Your task to perform on an android device: What's the time in New York? Image 0: 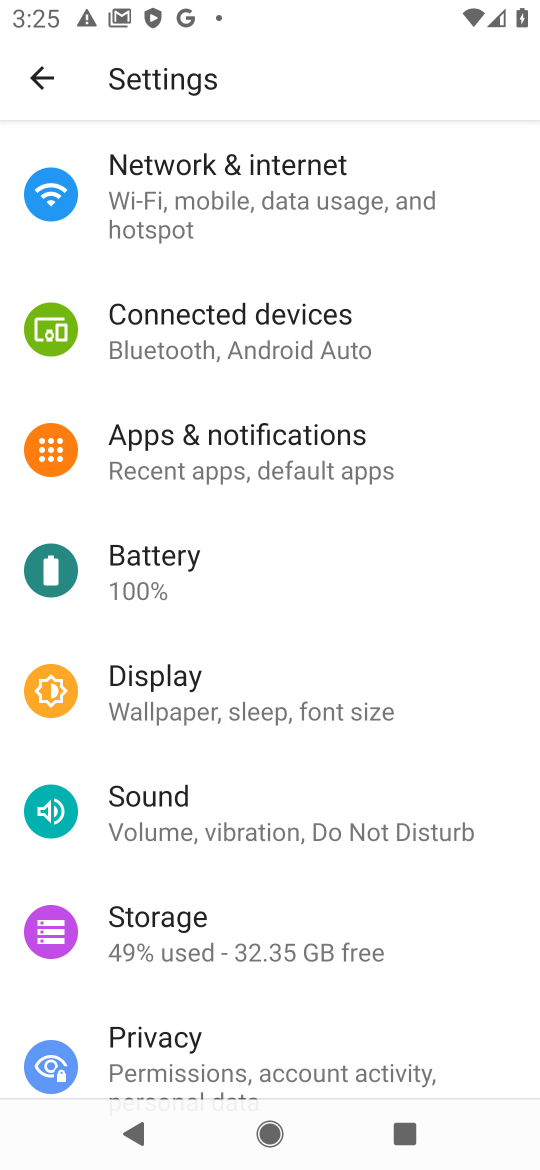
Step 0: press home button
Your task to perform on an android device: What's the time in New York? Image 1: 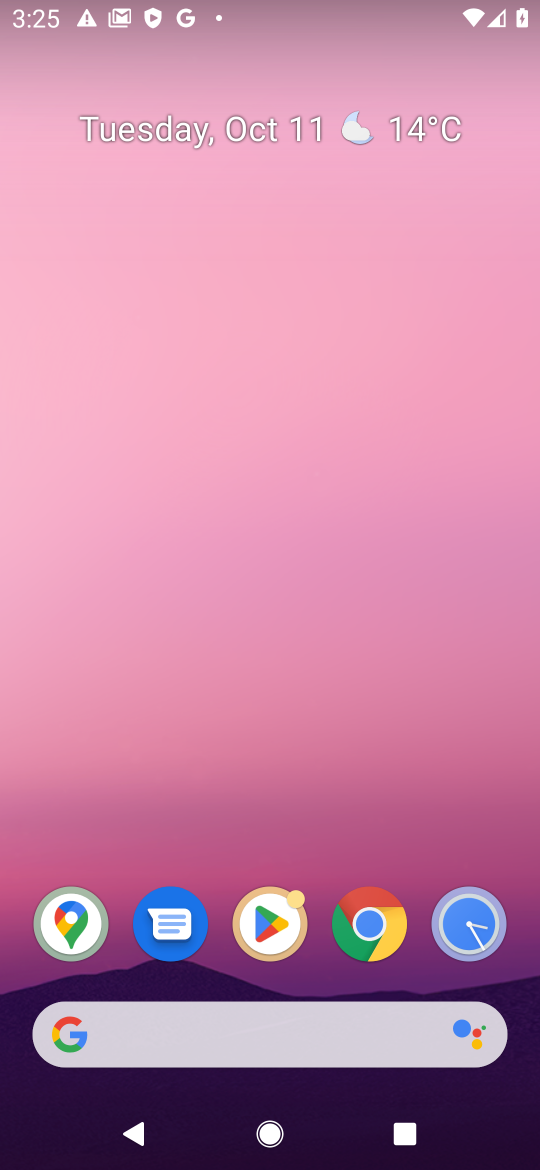
Step 1: click (393, 928)
Your task to perform on an android device: What's the time in New York? Image 2: 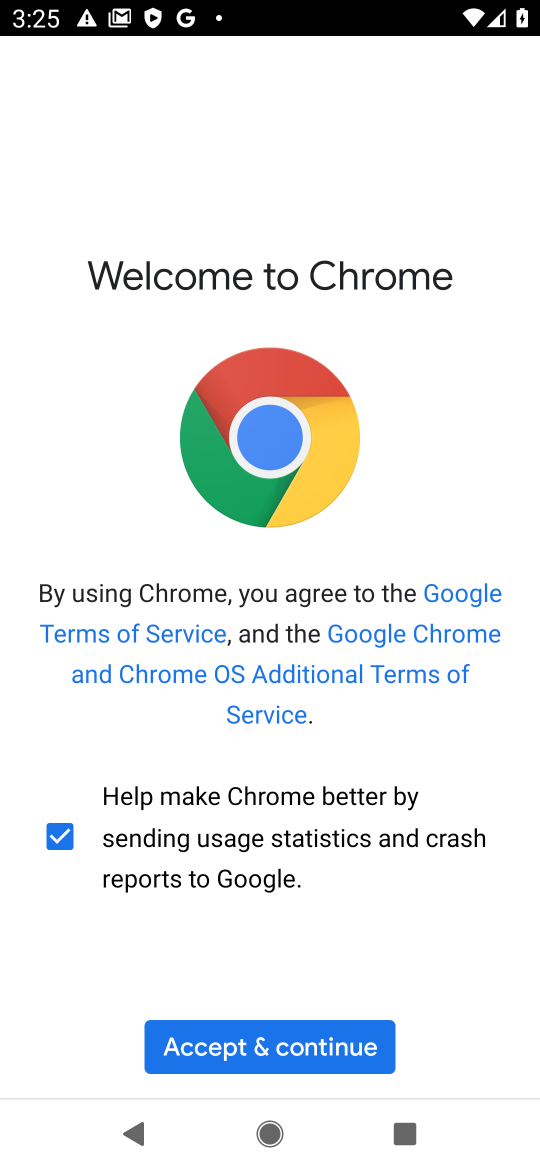
Step 2: click (361, 1053)
Your task to perform on an android device: What's the time in New York? Image 3: 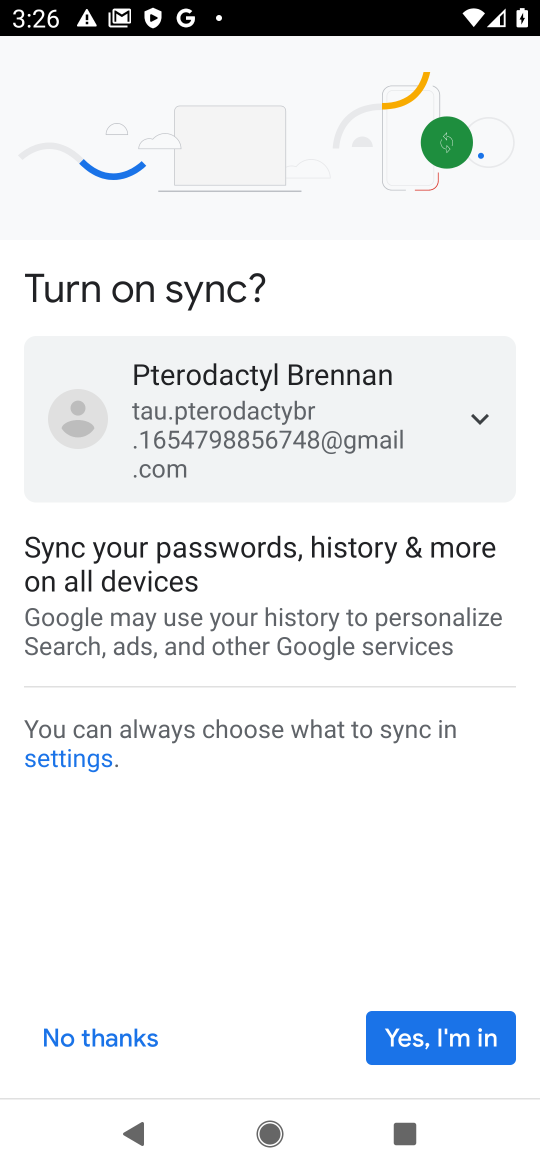
Step 3: click (415, 1040)
Your task to perform on an android device: What's the time in New York? Image 4: 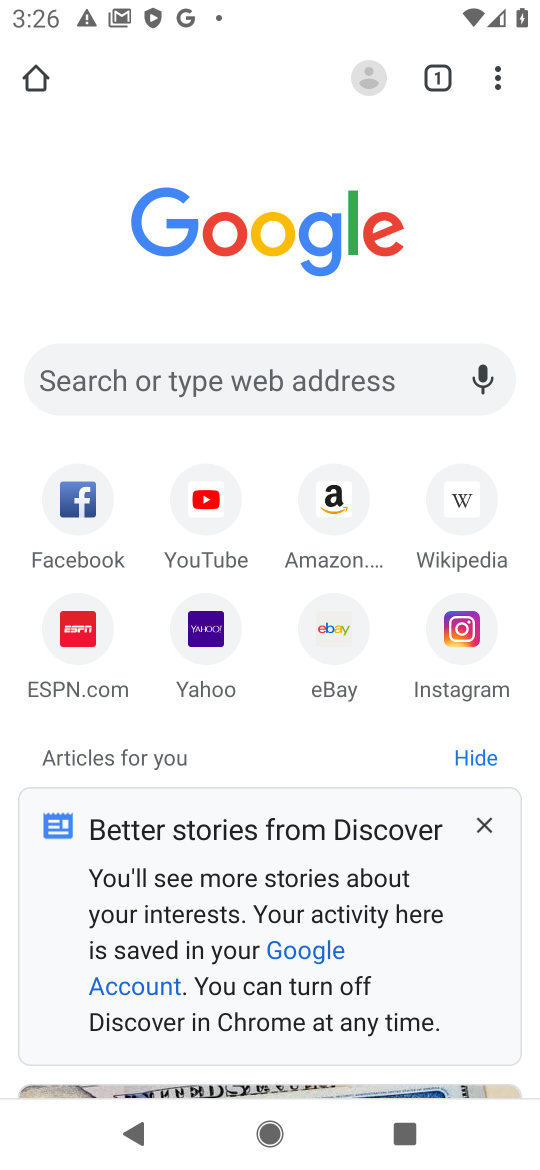
Step 4: click (259, 373)
Your task to perform on an android device: What's the time in New York? Image 5: 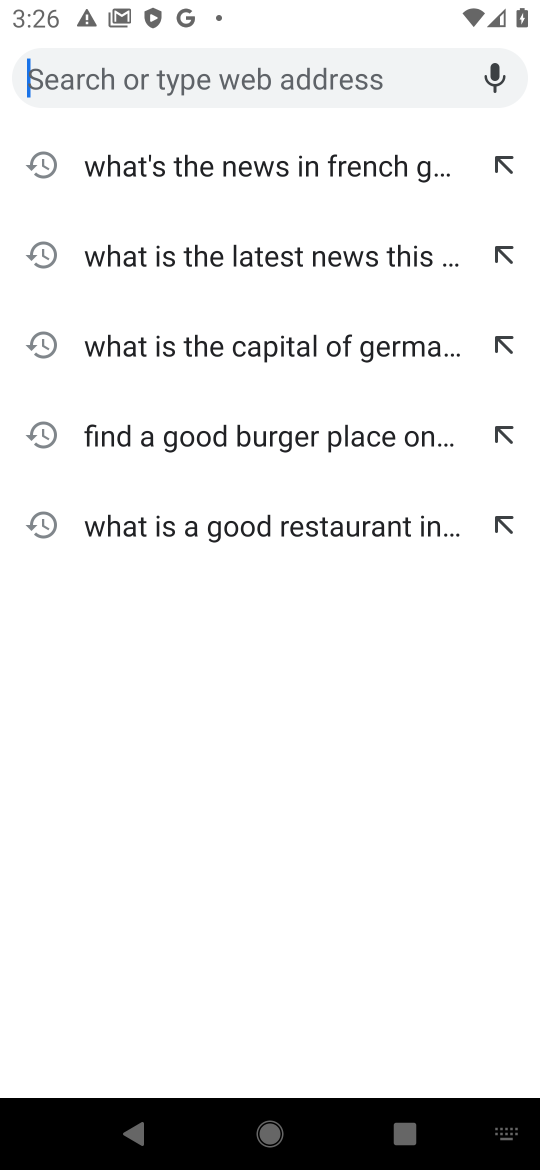
Step 5: type "time in New York"
Your task to perform on an android device: What's the time in New York? Image 6: 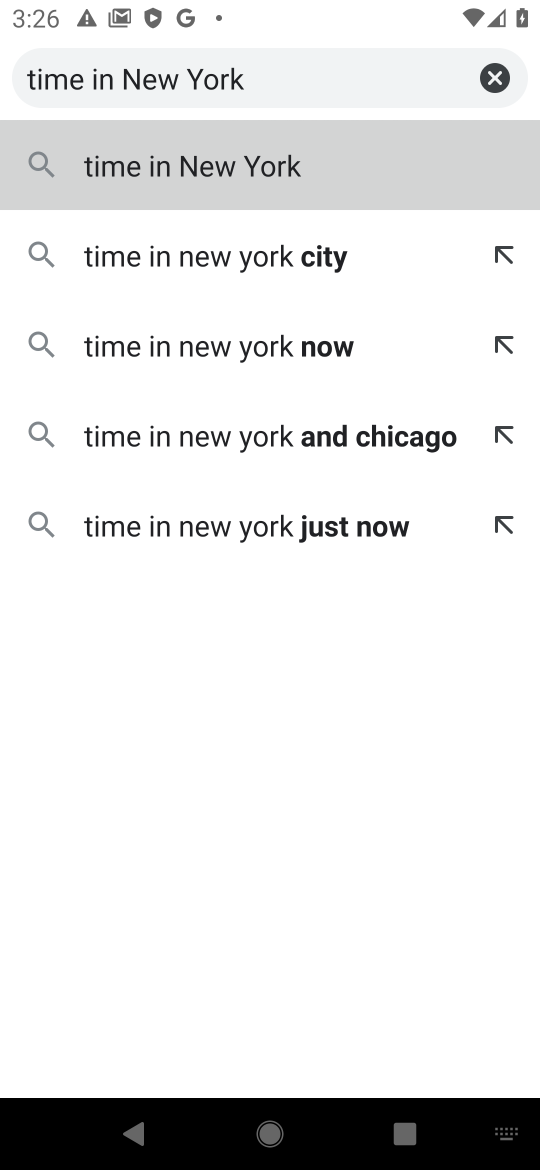
Step 6: click (239, 172)
Your task to perform on an android device: What's the time in New York? Image 7: 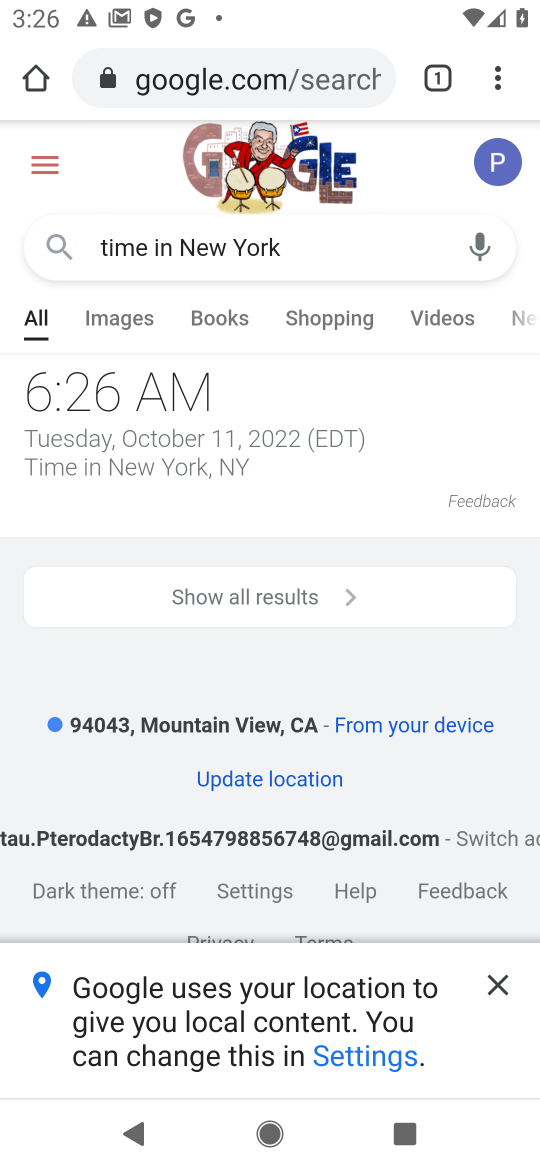
Step 7: task complete